Your task to perform on an android device: turn notification dots on Image 0: 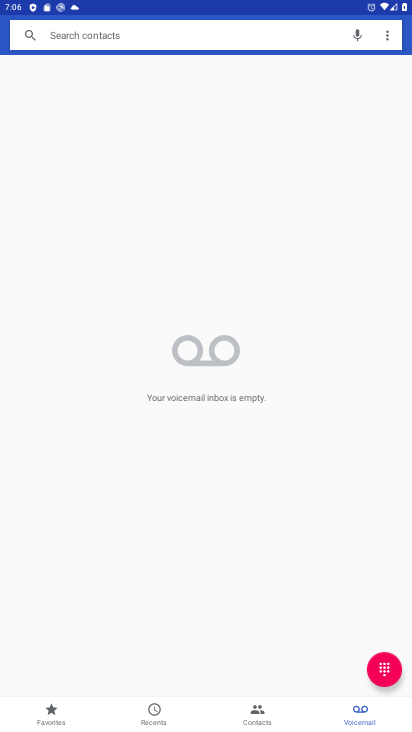
Step 0: press home button
Your task to perform on an android device: turn notification dots on Image 1: 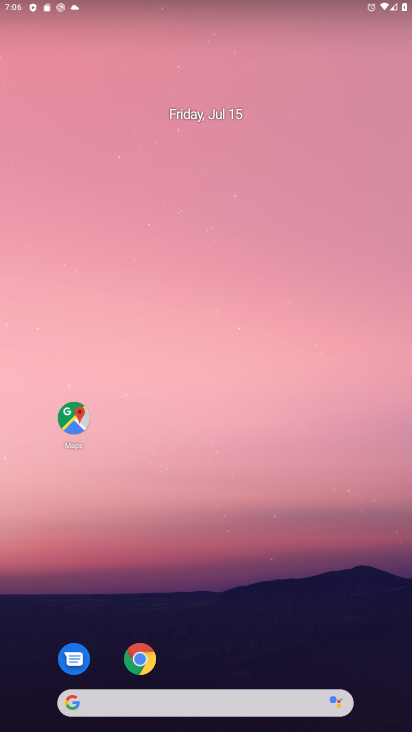
Step 1: drag from (364, 657) to (313, 291)
Your task to perform on an android device: turn notification dots on Image 2: 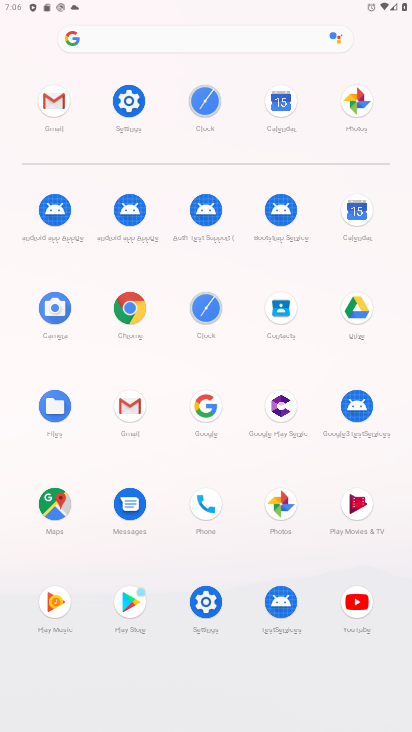
Step 2: click (205, 602)
Your task to perform on an android device: turn notification dots on Image 3: 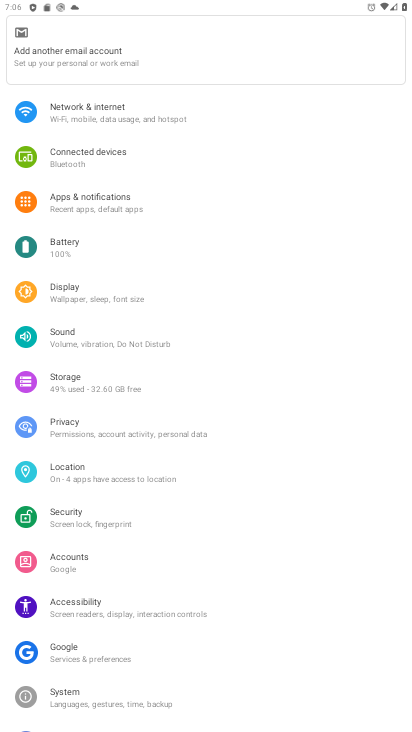
Step 3: click (101, 197)
Your task to perform on an android device: turn notification dots on Image 4: 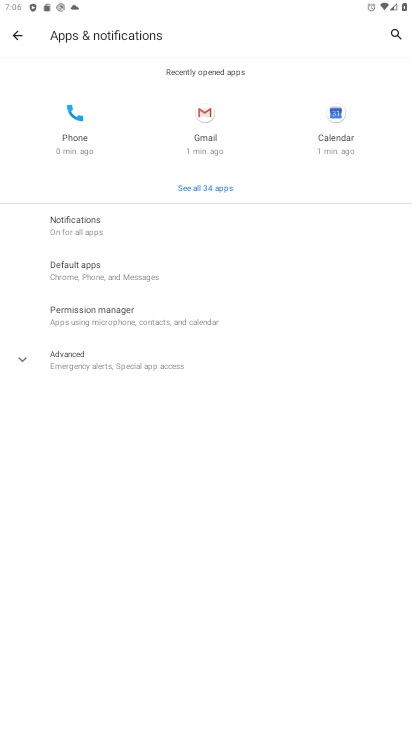
Step 4: click (66, 226)
Your task to perform on an android device: turn notification dots on Image 5: 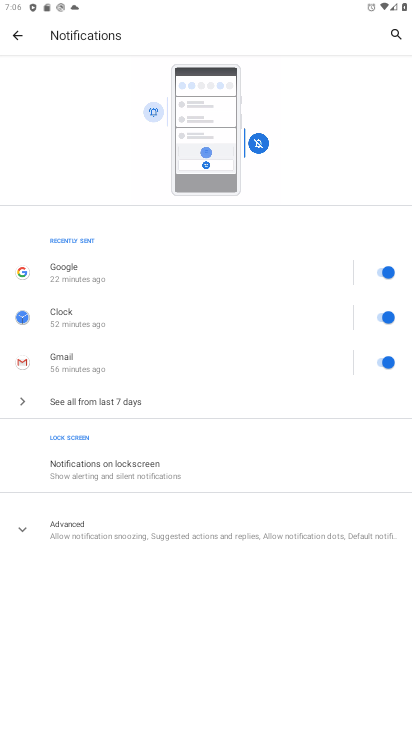
Step 5: click (29, 530)
Your task to perform on an android device: turn notification dots on Image 6: 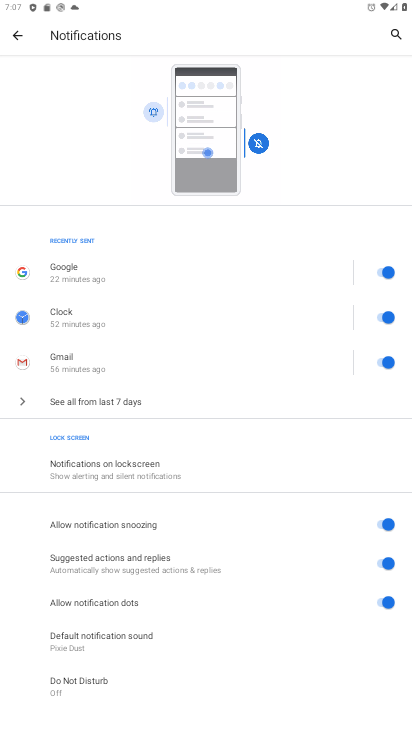
Step 6: task complete